Your task to perform on an android device: turn pop-ups on in chrome Image 0: 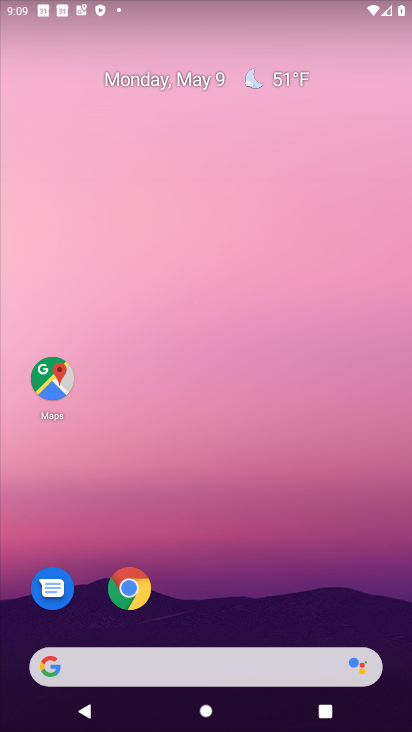
Step 0: click (128, 584)
Your task to perform on an android device: turn pop-ups on in chrome Image 1: 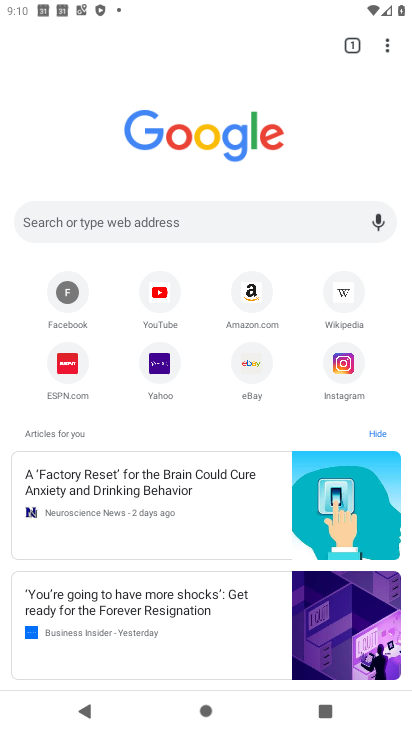
Step 1: click (392, 42)
Your task to perform on an android device: turn pop-ups on in chrome Image 2: 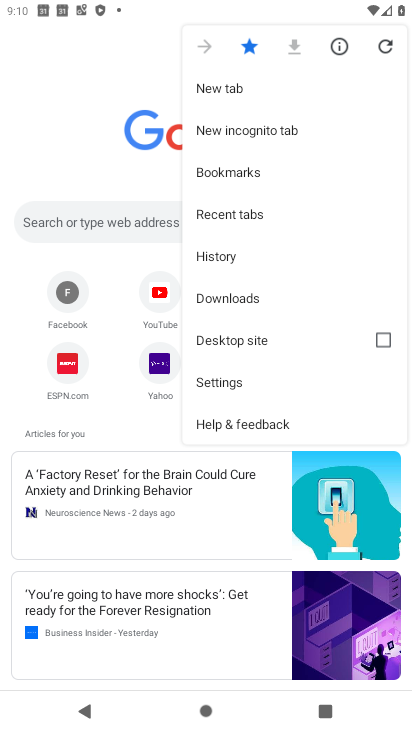
Step 2: click (240, 368)
Your task to perform on an android device: turn pop-ups on in chrome Image 3: 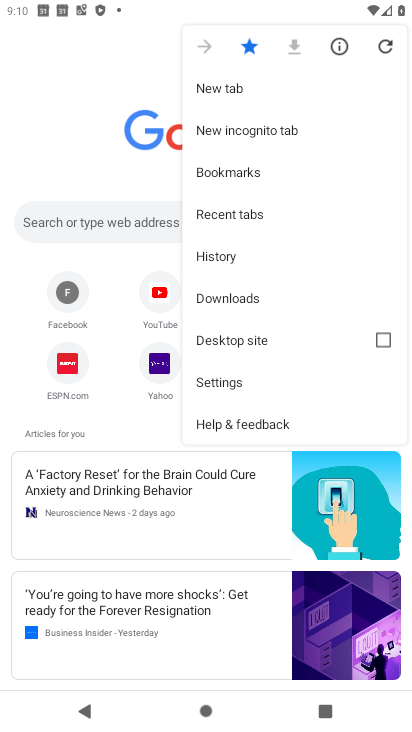
Step 3: click (241, 368)
Your task to perform on an android device: turn pop-ups on in chrome Image 4: 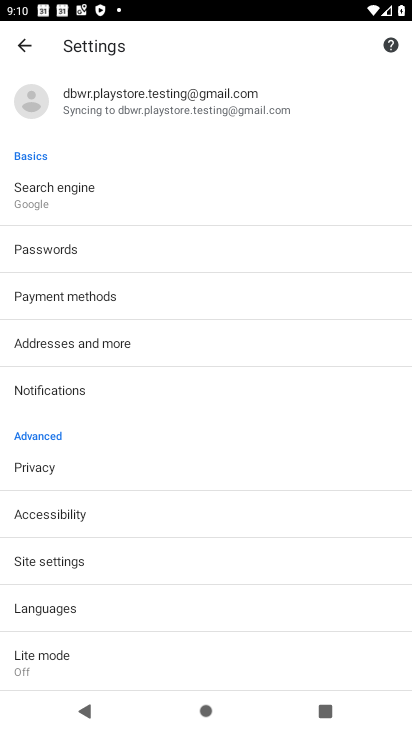
Step 4: click (76, 557)
Your task to perform on an android device: turn pop-ups on in chrome Image 5: 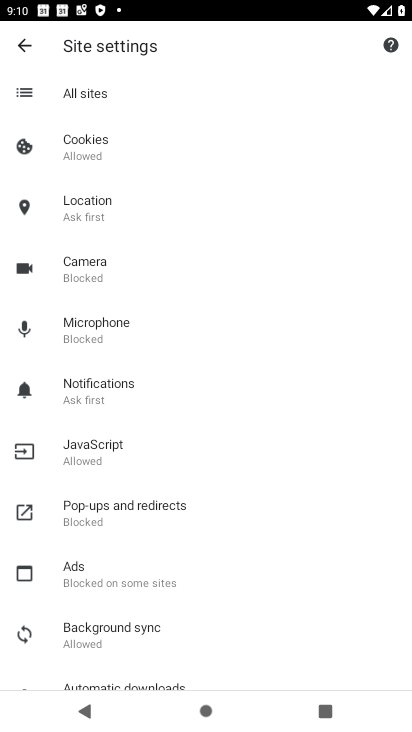
Step 5: click (117, 519)
Your task to perform on an android device: turn pop-ups on in chrome Image 6: 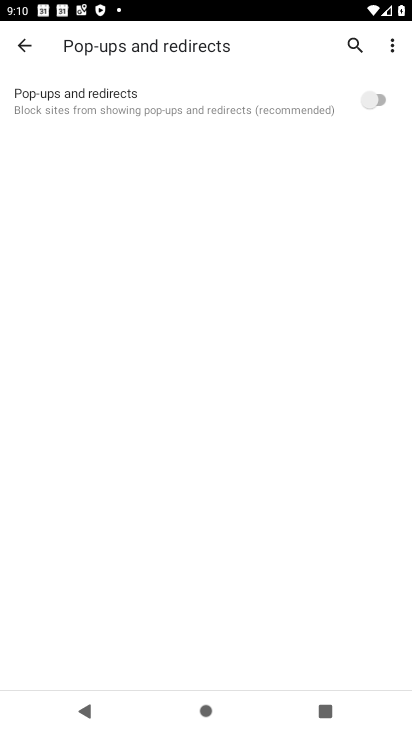
Step 6: click (379, 96)
Your task to perform on an android device: turn pop-ups on in chrome Image 7: 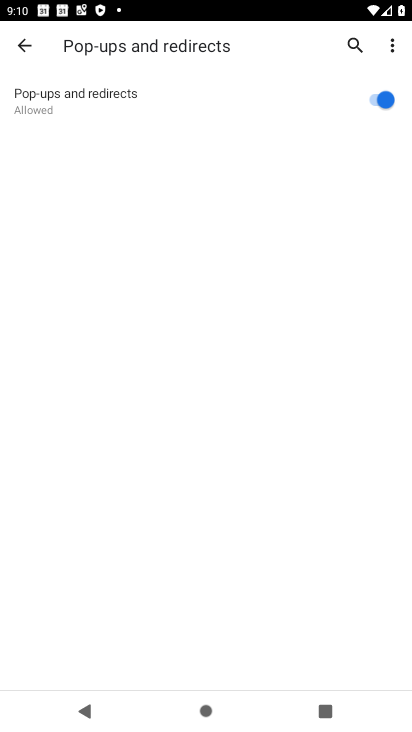
Step 7: task complete